Your task to perform on an android device: turn on location history Image 0: 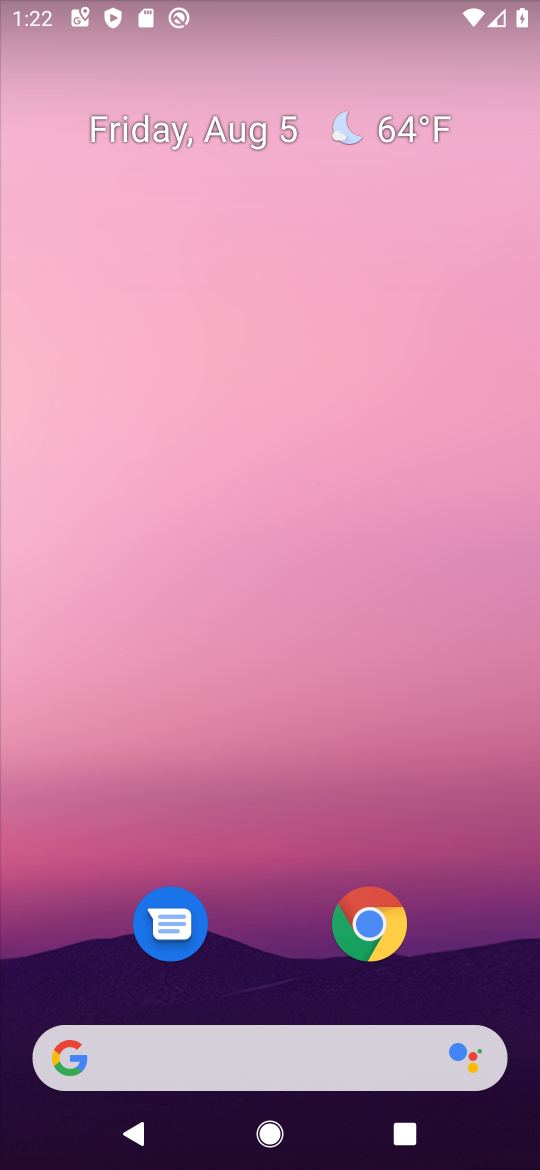
Step 0: drag from (247, 1053) to (234, 282)
Your task to perform on an android device: turn on location history Image 1: 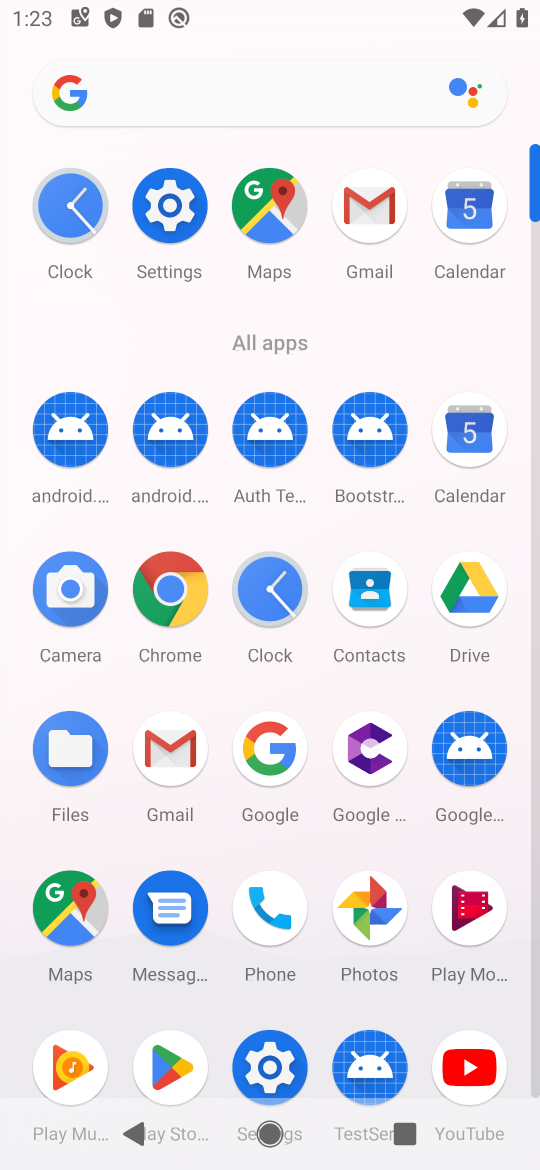
Step 1: click (168, 204)
Your task to perform on an android device: turn on location history Image 2: 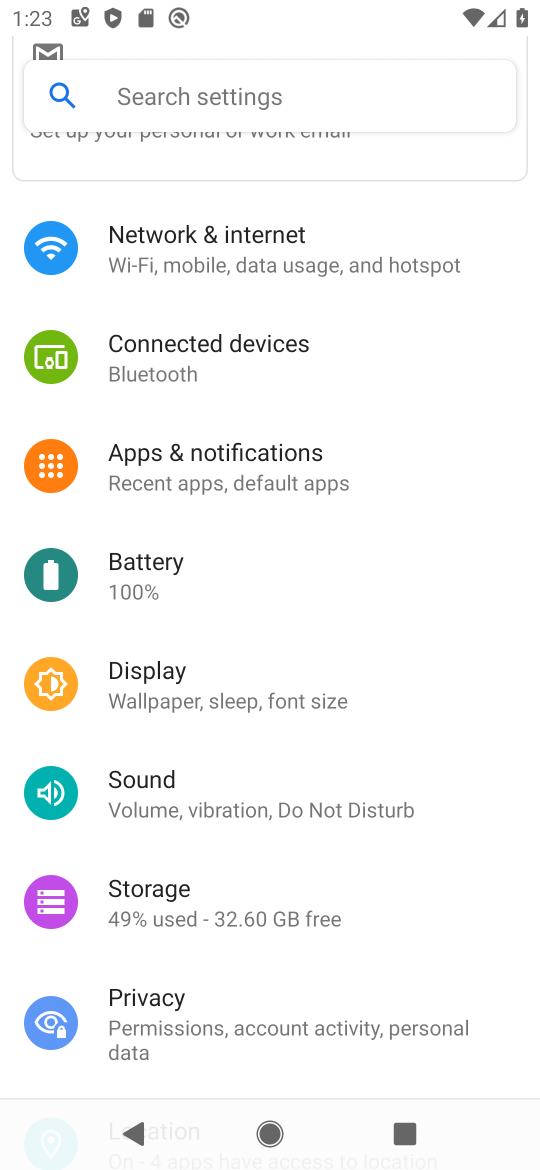
Step 2: drag from (186, 833) to (307, 667)
Your task to perform on an android device: turn on location history Image 3: 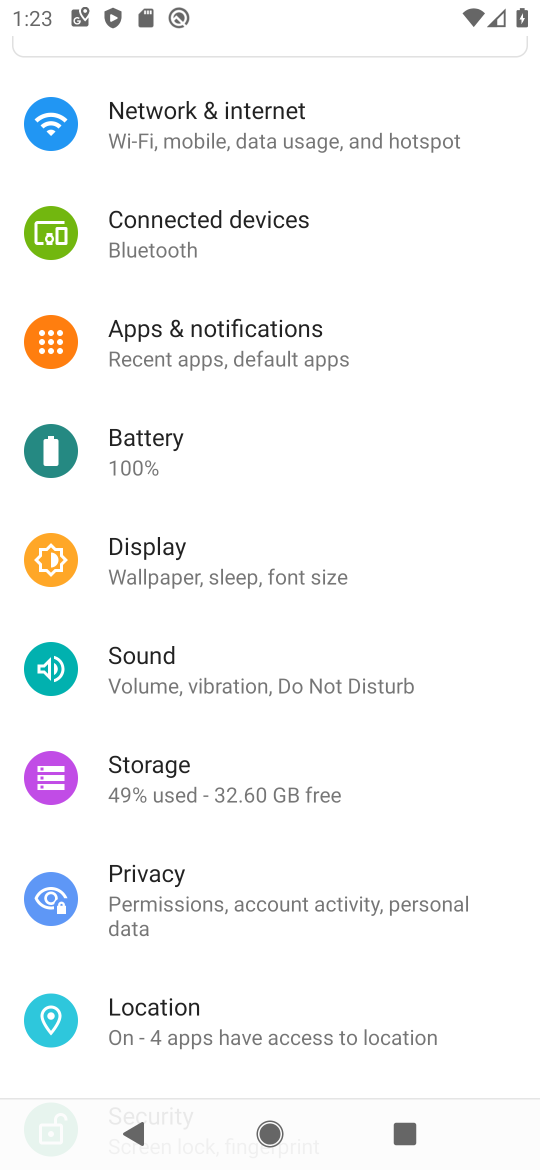
Step 3: drag from (288, 981) to (382, 825)
Your task to perform on an android device: turn on location history Image 4: 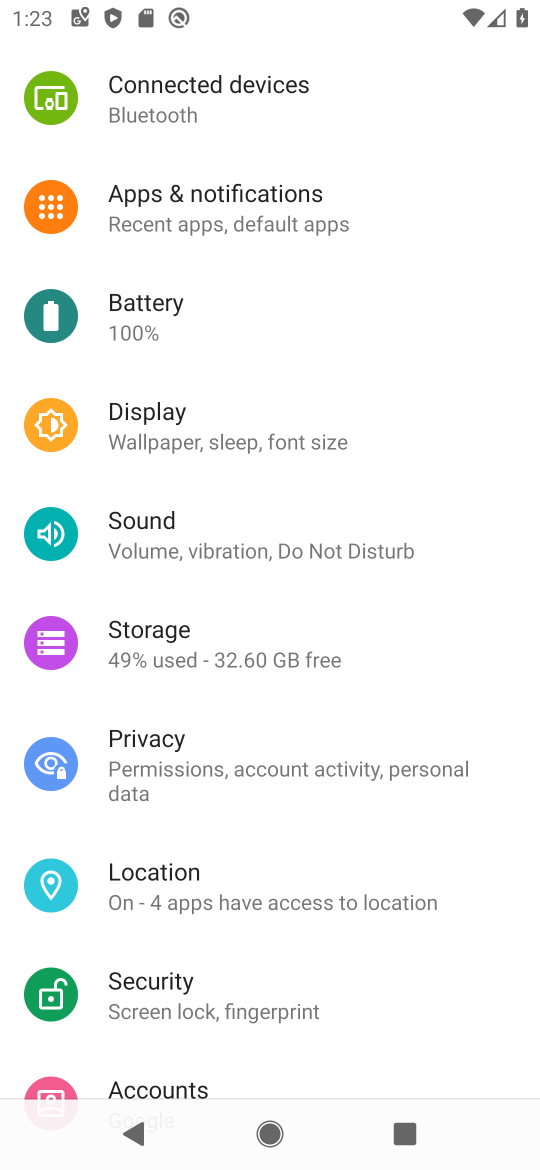
Step 4: click (277, 906)
Your task to perform on an android device: turn on location history Image 5: 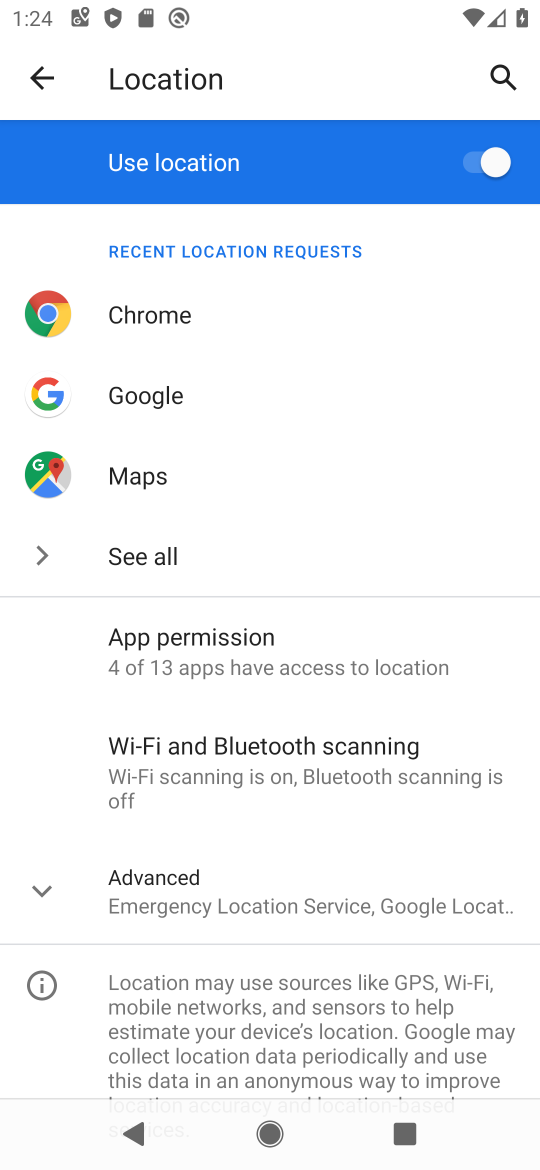
Step 5: click (293, 907)
Your task to perform on an android device: turn on location history Image 6: 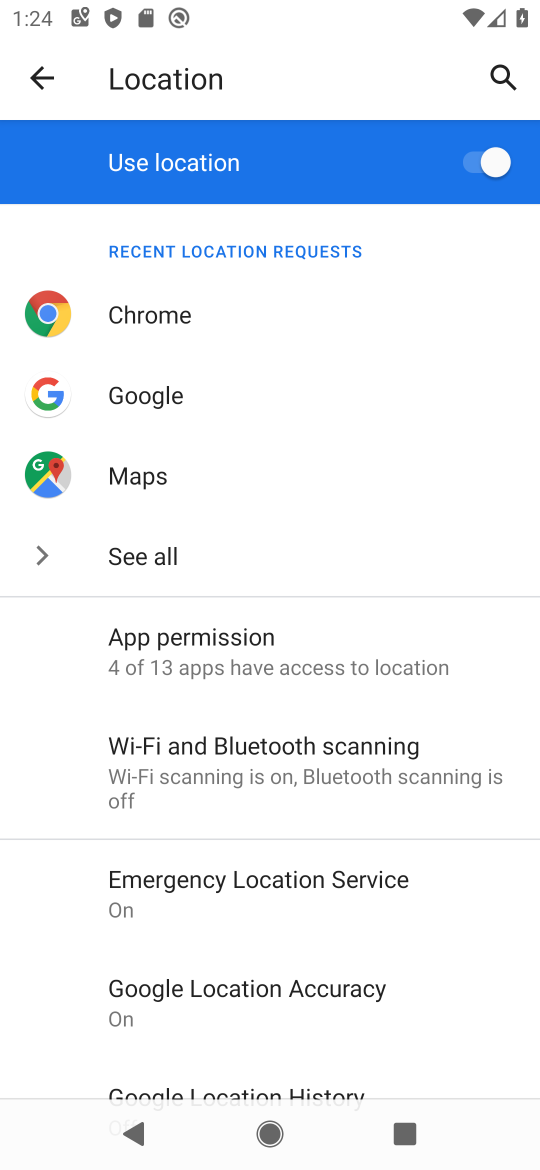
Step 6: drag from (275, 1044) to (448, 721)
Your task to perform on an android device: turn on location history Image 7: 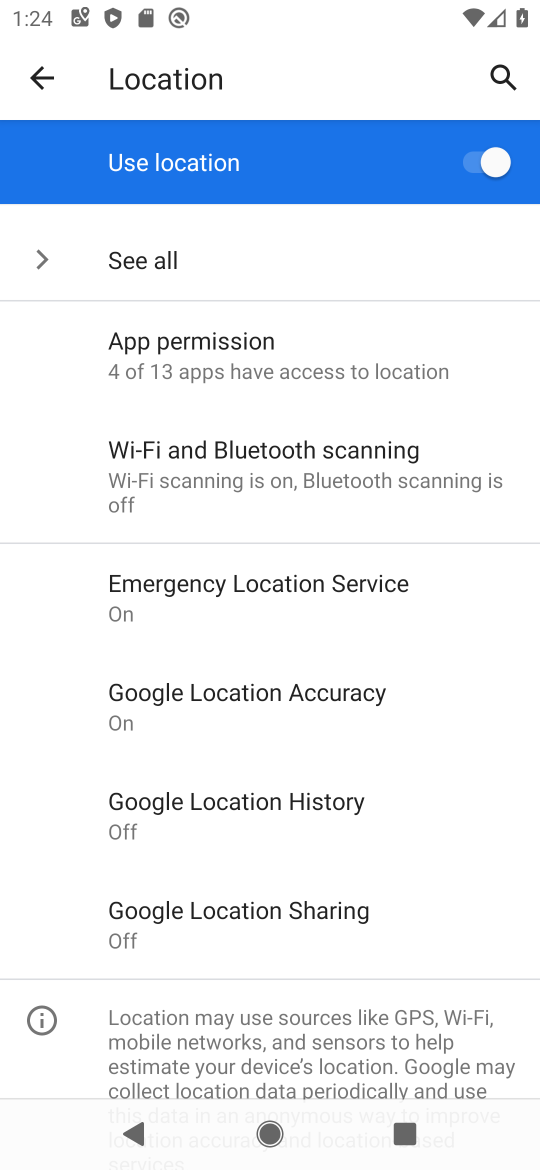
Step 7: click (283, 808)
Your task to perform on an android device: turn on location history Image 8: 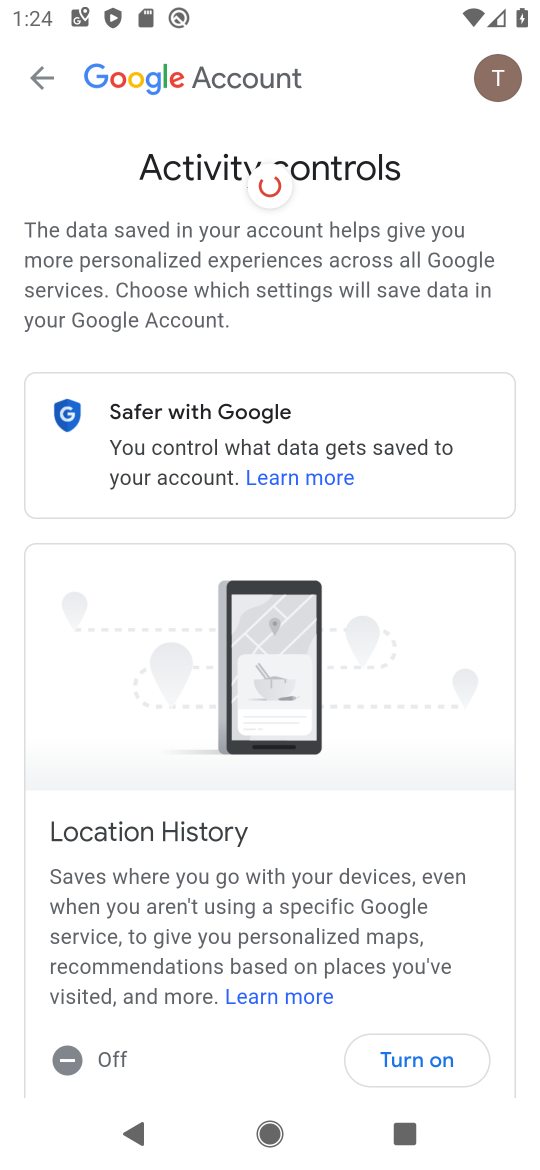
Step 8: click (410, 1061)
Your task to perform on an android device: turn on location history Image 9: 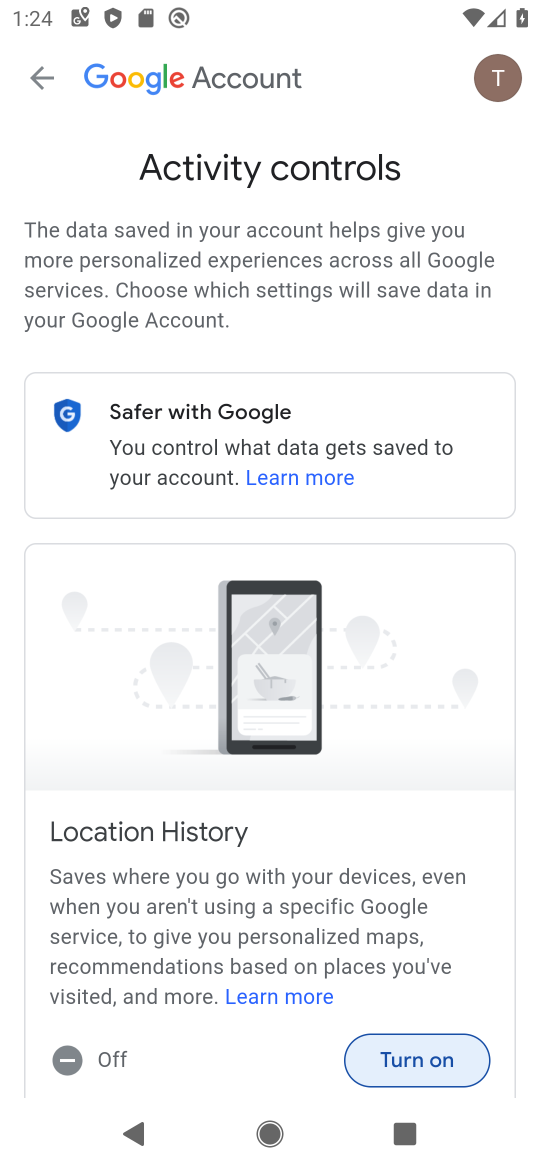
Step 9: click (399, 1054)
Your task to perform on an android device: turn on location history Image 10: 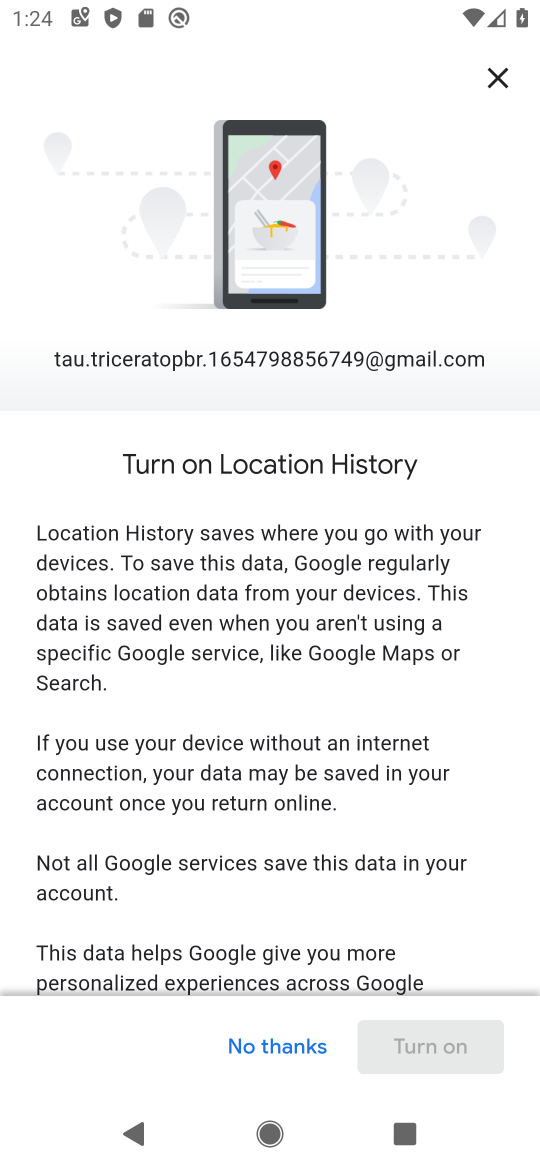
Step 10: drag from (258, 904) to (408, 508)
Your task to perform on an android device: turn on location history Image 11: 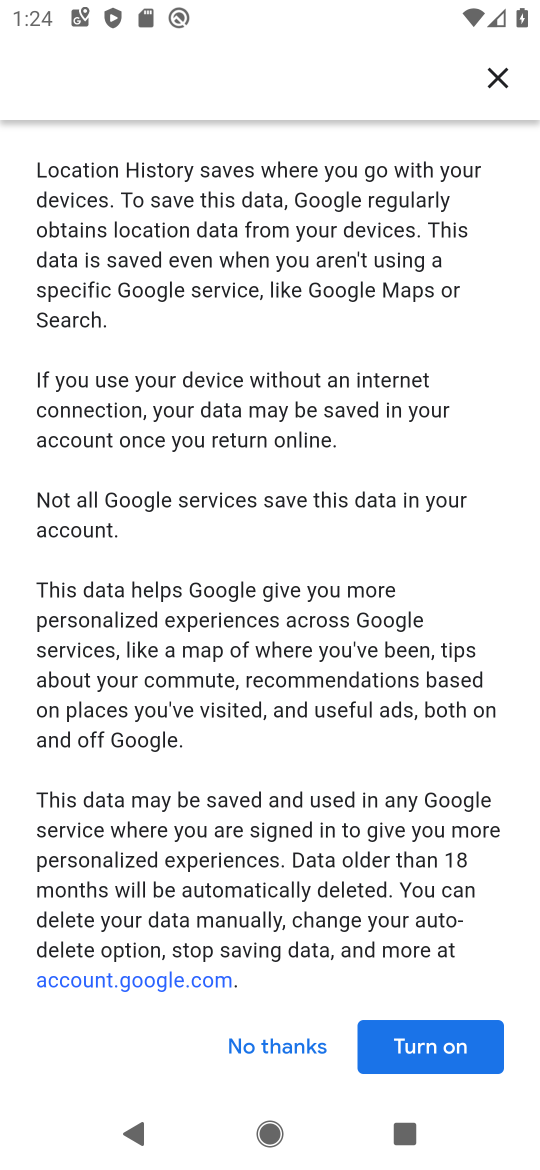
Step 11: click (433, 1051)
Your task to perform on an android device: turn on location history Image 12: 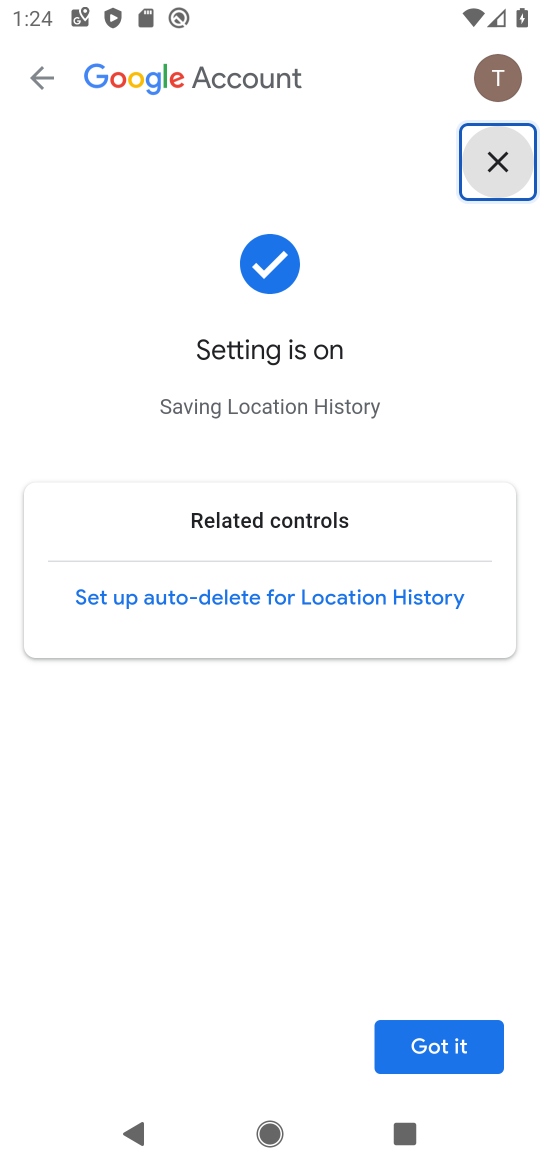
Step 12: click (433, 1051)
Your task to perform on an android device: turn on location history Image 13: 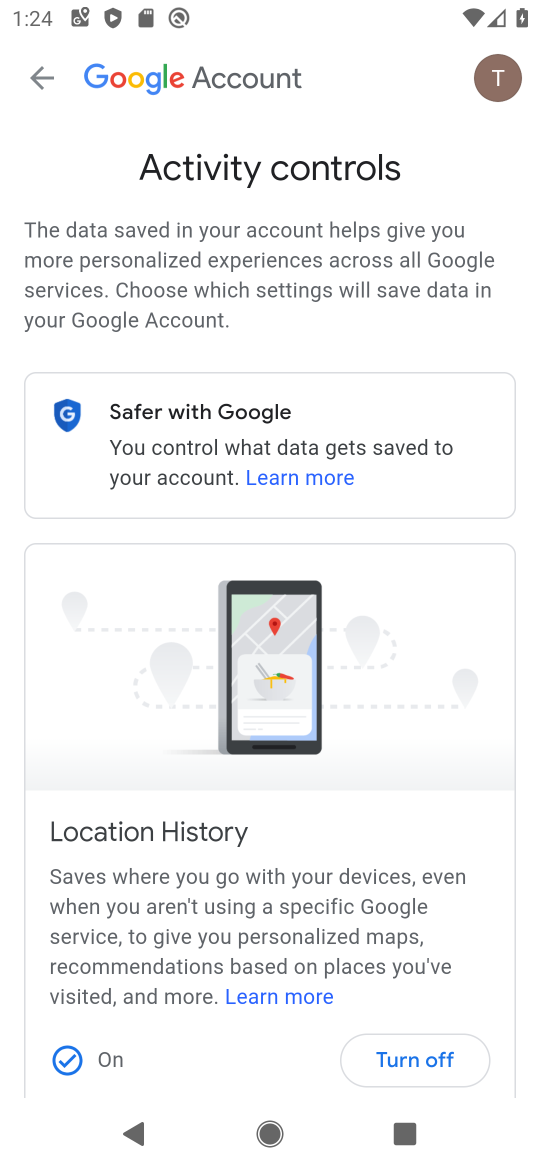
Step 13: task complete